Your task to perform on an android device: What is the recent news? Image 0: 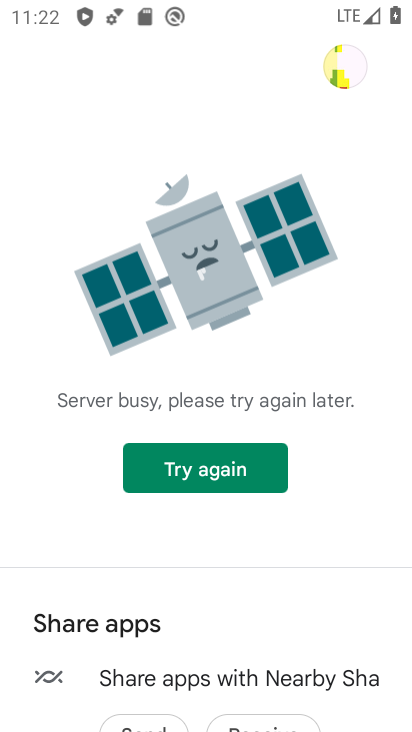
Step 0: press home button
Your task to perform on an android device: What is the recent news? Image 1: 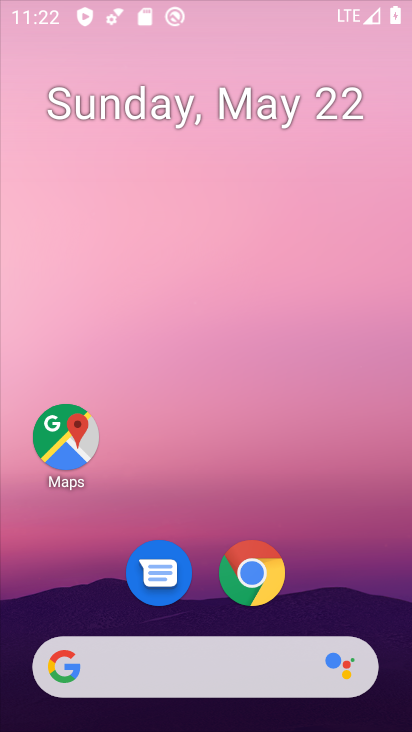
Step 1: drag from (216, 598) to (241, 270)
Your task to perform on an android device: What is the recent news? Image 2: 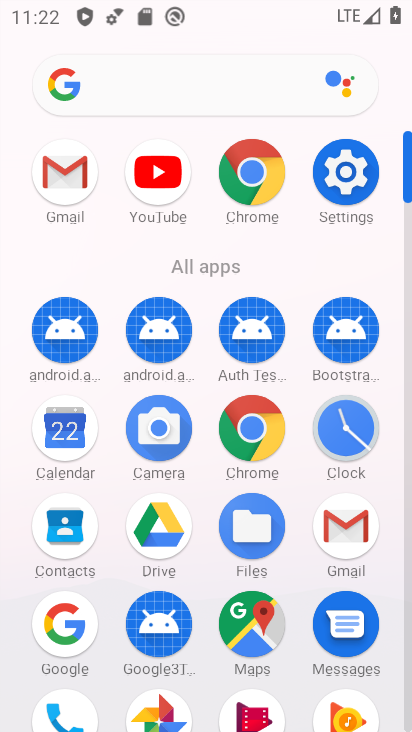
Step 2: click (183, 79)
Your task to perform on an android device: What is the recent news? Image 3: 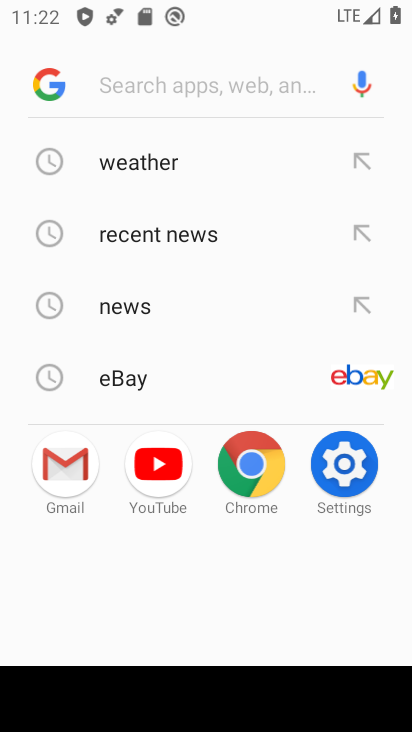
Step 3: type "recent news"
Your task to perform on an android device: What is the recent news? Image 4: 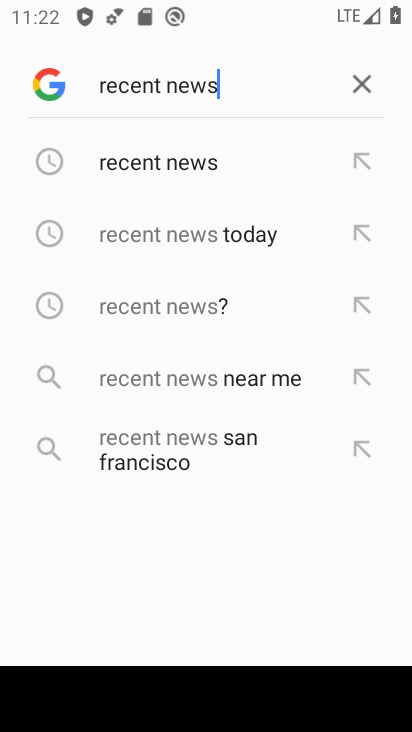
Step 4: click (176, 167)
Your task to perform on an android device: What is the recent news? Image 5: 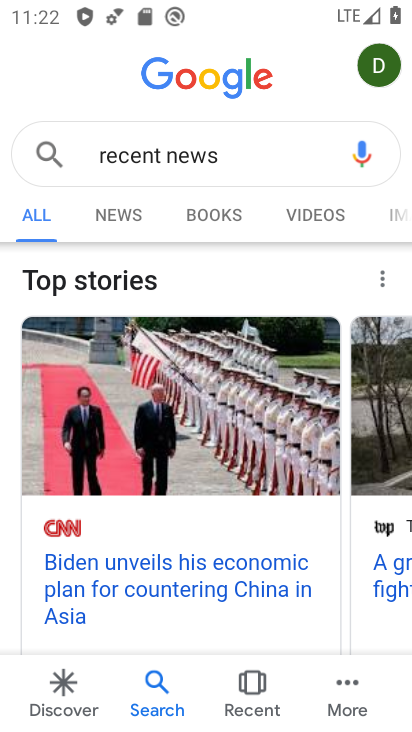
Step 5: task complete